Your task to perform on an android device: What's on my calendar tomorrow? Image 0: 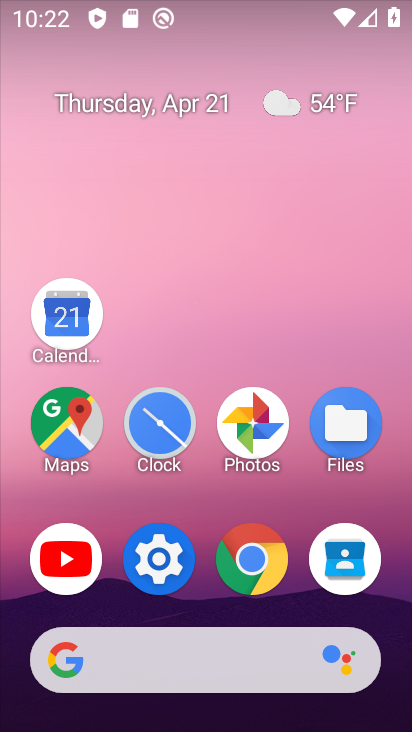
Step 0: click (55, 318)
Your task to perform on an android device: What's on my calendar tomorrow? Image 1: 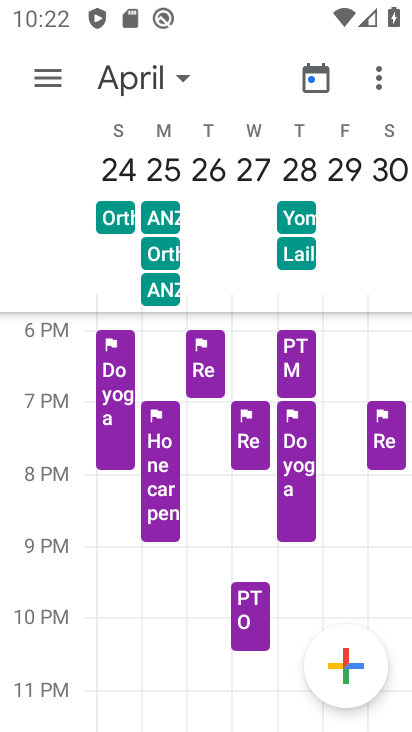
Step 1: click (59, 77)
Your task to perform on an android device: What's on my calendar tomorrow? Image 2: 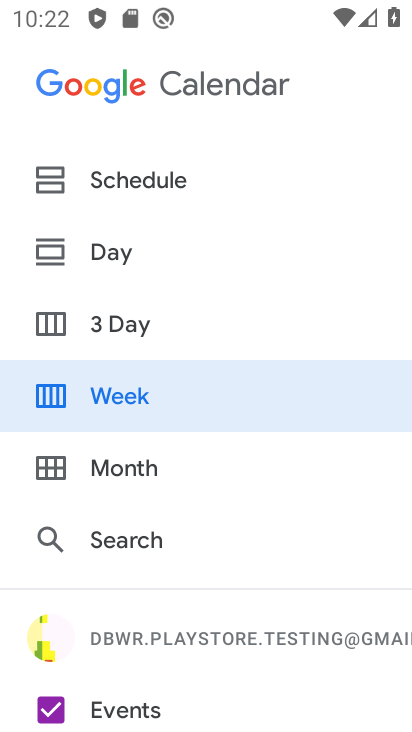
Step 2: click (112, 257)
Your task to perform on an android device: What's on my calendar tomorrow? Image 3: 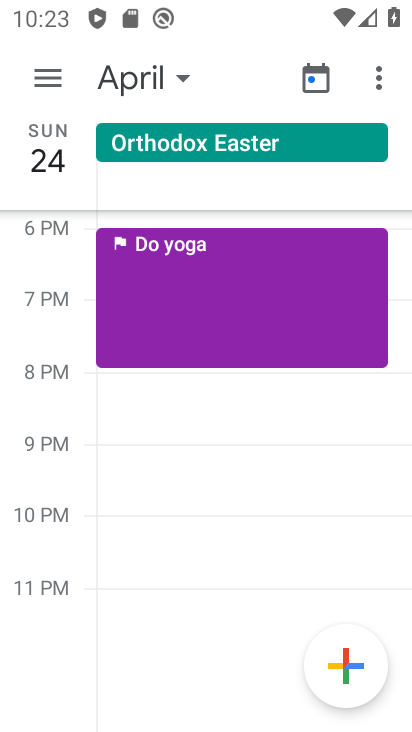
Step 3: click (182, 75)
Your task to perform on an android device: What's on my calendar tomorrow? Image 4: 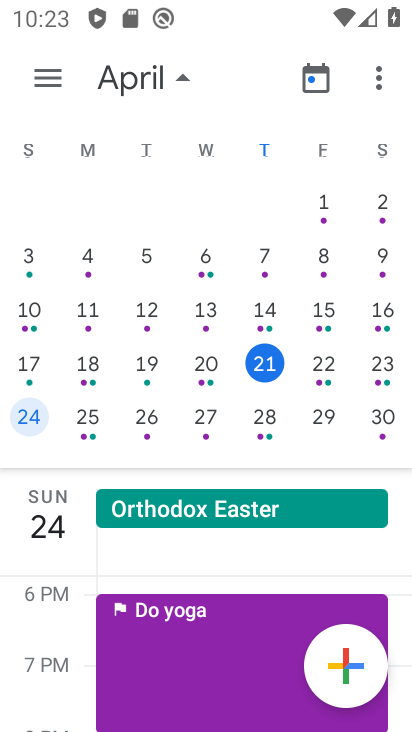
Step 4: click (324, 363)
Your task to perform on an android device: What's on my calendar tomorrow? Image 5: 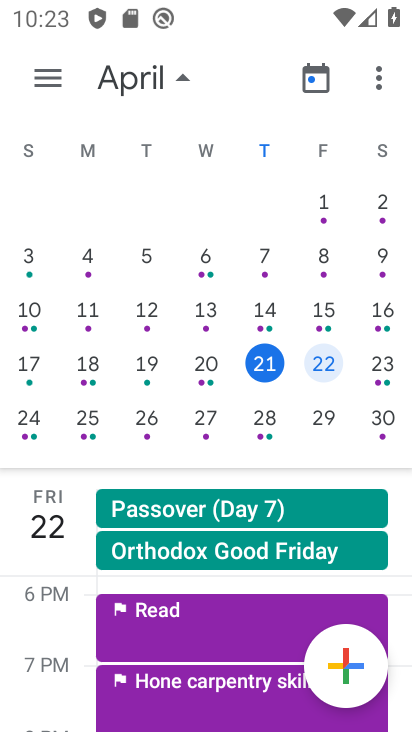
Step 5: task complete